Your task to perform on an android device: find snoozed emails in the gmail app Image 0: 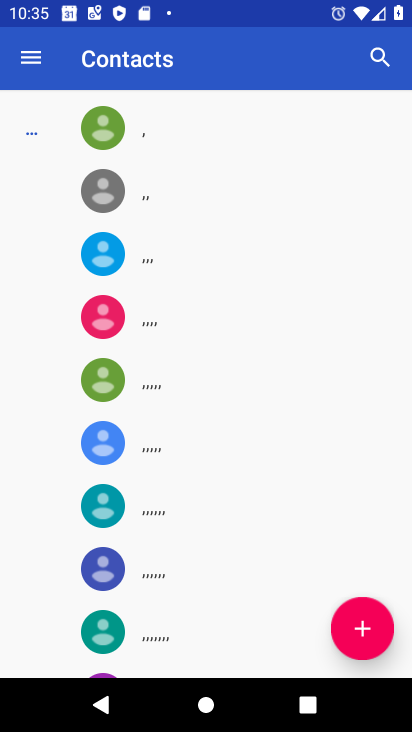
Step 0: press home button
Your task to perform on an android device: find snoozed emails in the gmail app Image 1: 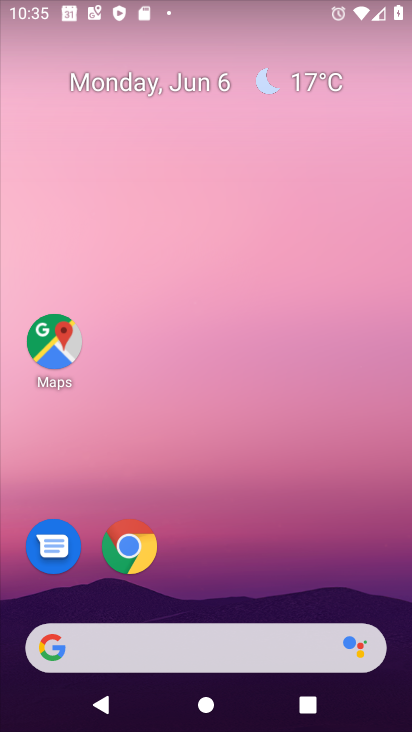
Step 1: drag from (233, 580) to (251, 434)
Your task to perform on an android device: find snoozed emails in the gmail app Image 2: 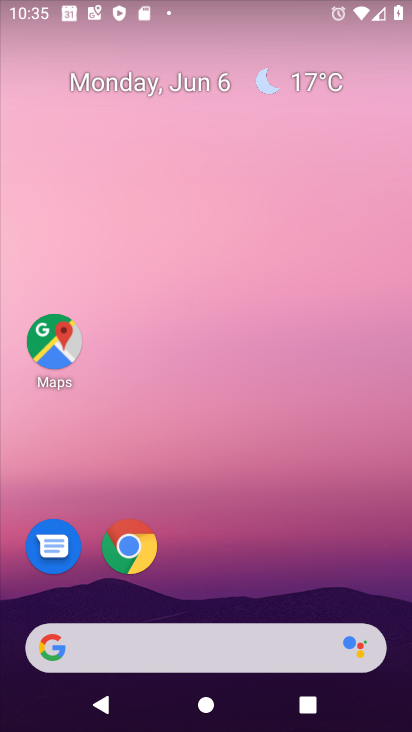
Step 2: drag from (231, 604) to (298, 37)
Your task to perform on an android device: find snoozed emails in the gmail app Image 3: 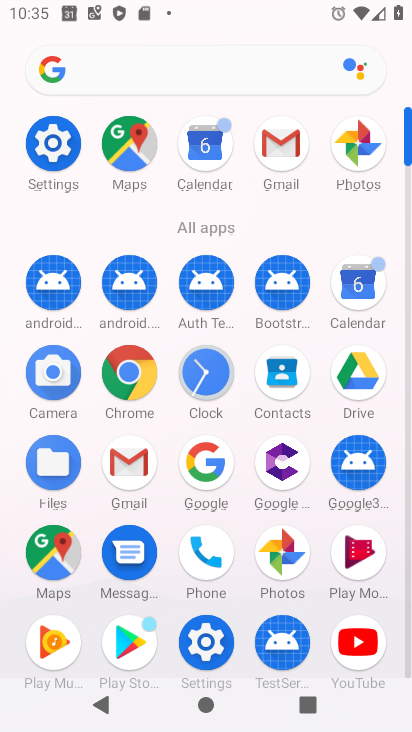
Step 3: click (130, 455)
Your task to perform on an android device: find snoozed emails in the gmail app Image 4: 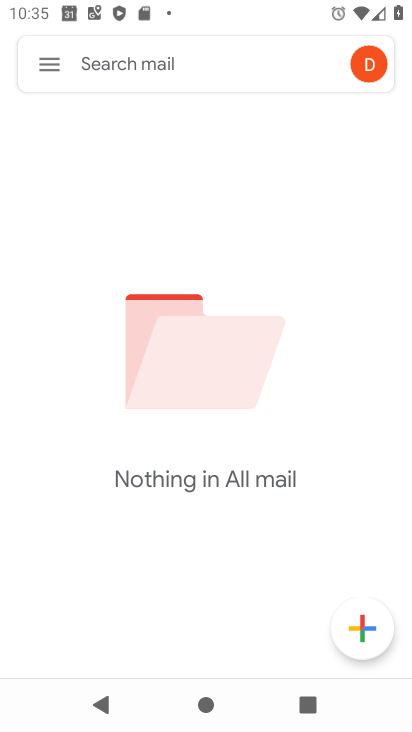
Step 4: click (43, 55)
Your task to perform on an android device: find snoozed emails in the gmail app Image 5: 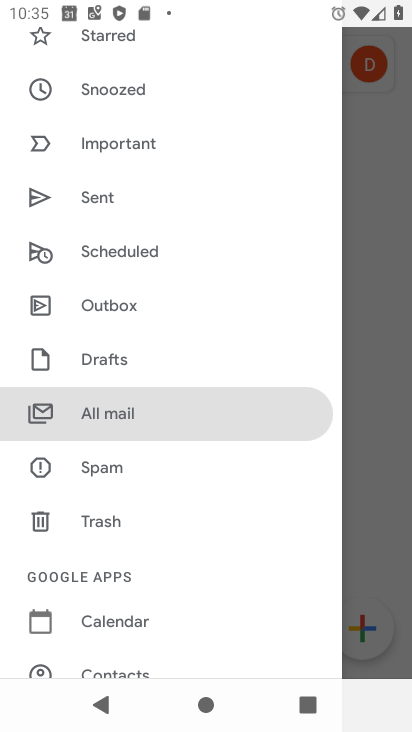
Step 5: drag from (127, 534) to (217, 155)
Your task to perform on an android device: find snoozed emails in the gmail app Image 6: 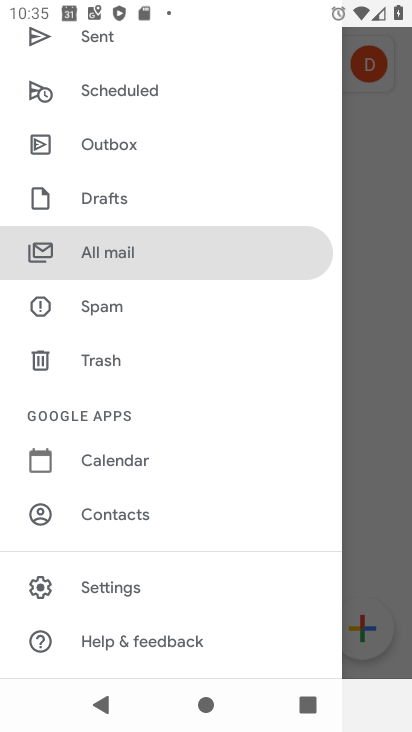
Step 6: drag from (149, 126) to (133, 392)
Your task to perform on an android device: find snoozed emails in the gmail app Image 7: 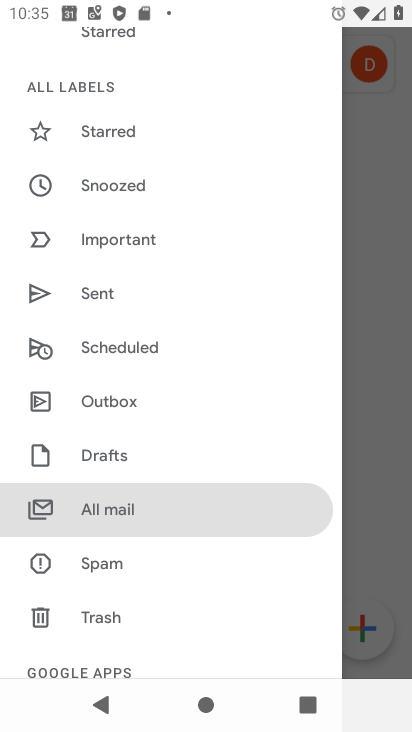
Step 7: click (71, 191)
Your task to perform on an android device: find snoozed emails in the gmail app Image 8: 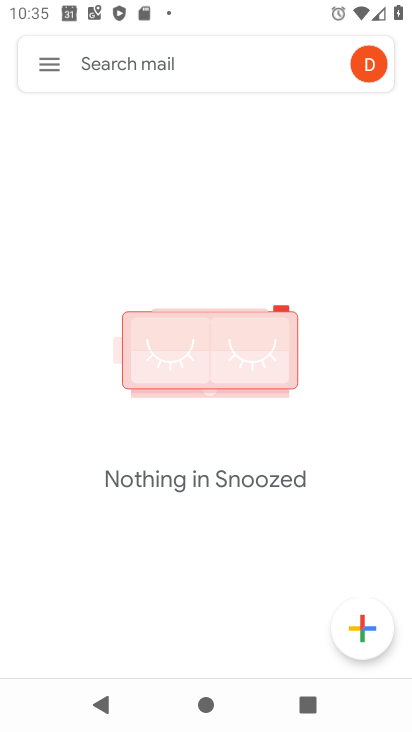
Step 8: task complete